Your task to perform on an android device: change the clock display to analog Image 0: 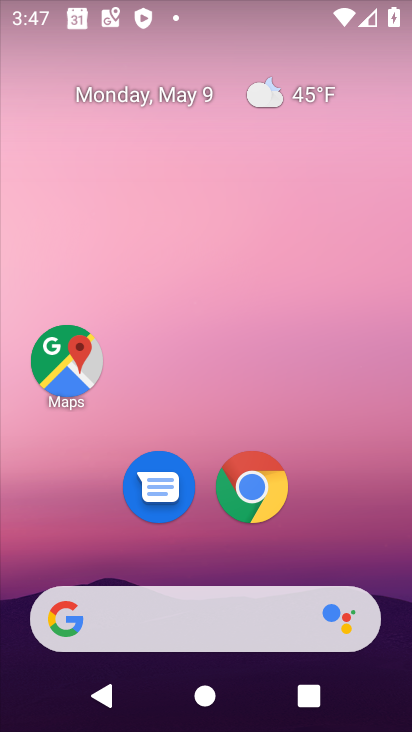
Step 0: drag from (217, 582) to (223, 147)
Your task to perform on an android device: change the clock display to analog Image 1: 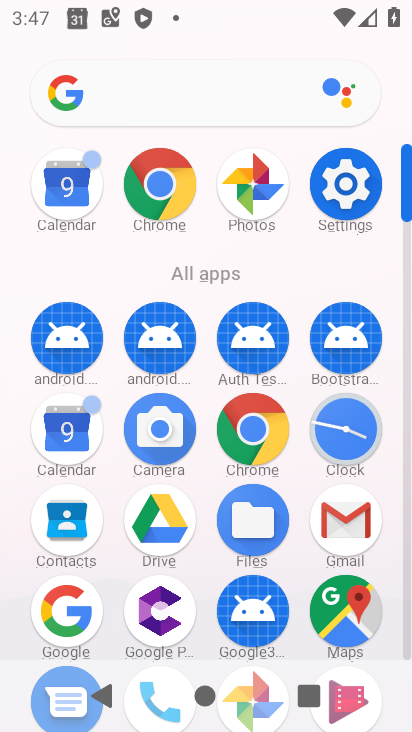
Step 1: click (347, 443)
Your task to perform on an android device: change the clock display to analog Image 2: 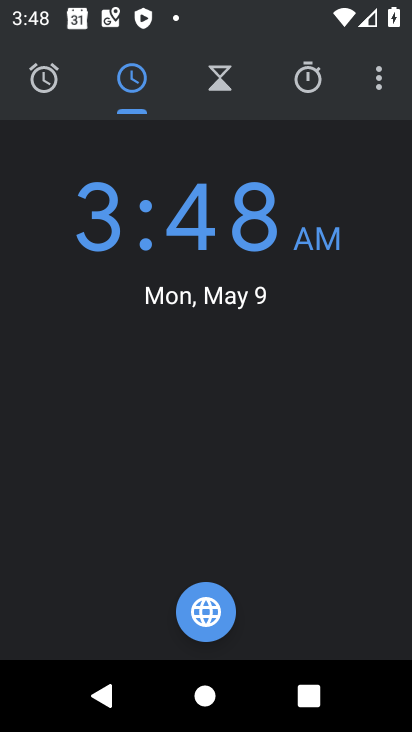
Step 2: click (384, 77)
Your task to perform on an android device: change the clock display to analog Image 3: 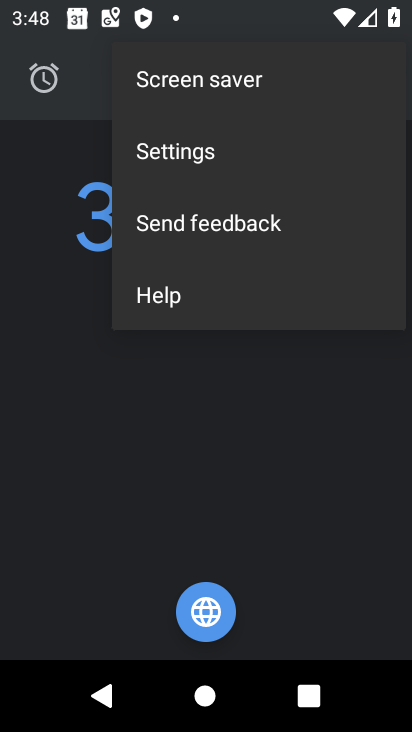
Step 3: click (194, 156)
Your task to perform on an android device: change the clock display to analog Image 4: 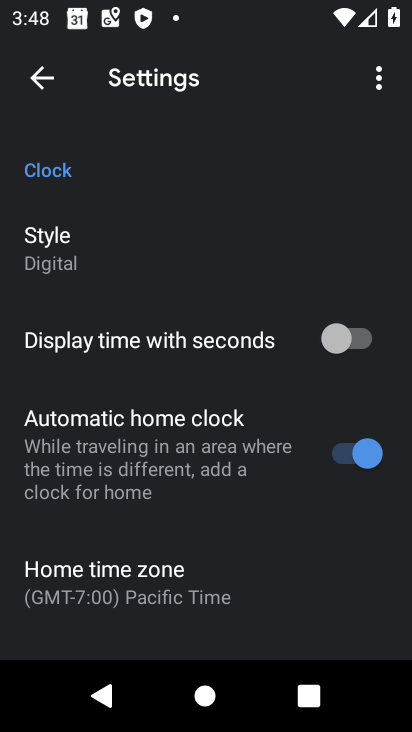
Step 4: click (40, 251)
Your task to perform on an android device: change the clock display to analog Image 5: 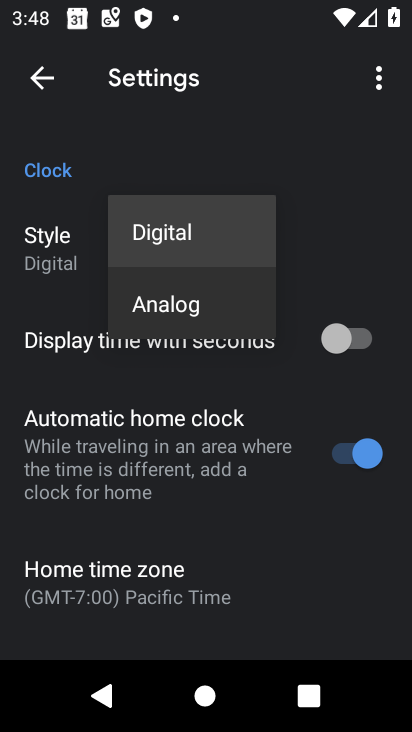
Step 5: click (137, 302)
Your task to perform on an android device: change the clock display to analog Image 6: 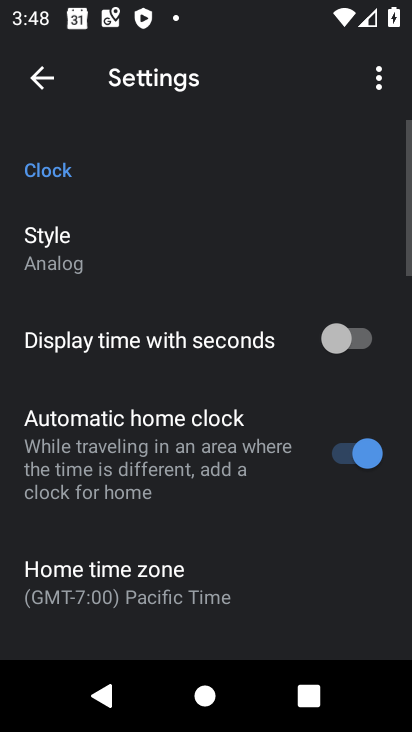
Step 6: task complete